Your task to perform on an android device: Open Google Chrome and open the bookmarks view Image 0: 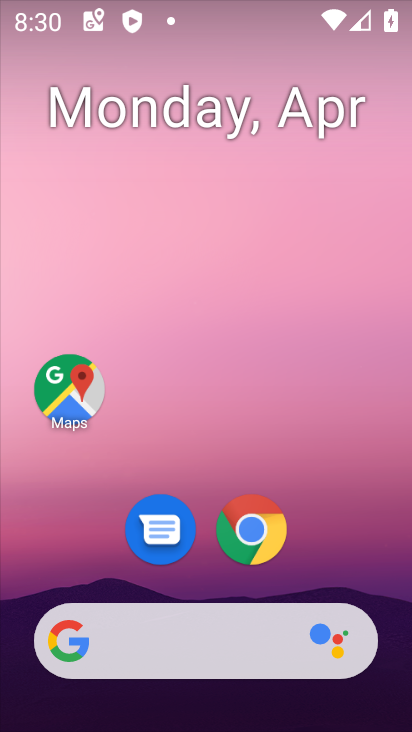
Step 0: click (258, 538)
Your task to perform on an android device: Open Google Chrome and open the bookmarks view Image 1: 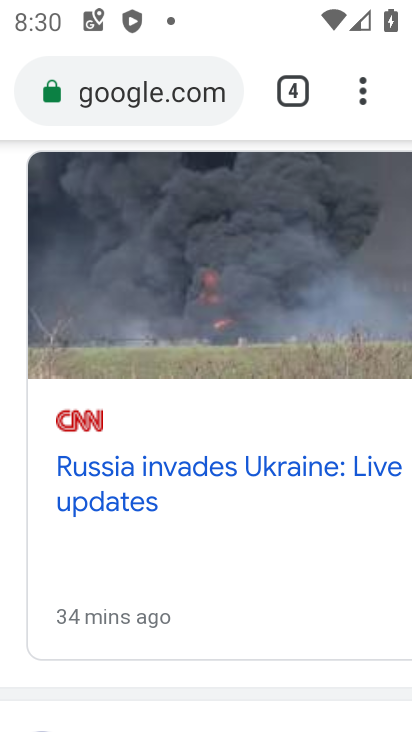
Step 1: click (359, 103)
Your task to perform on an android device: Open Google Chrome and open the bookmarks view Image 2: 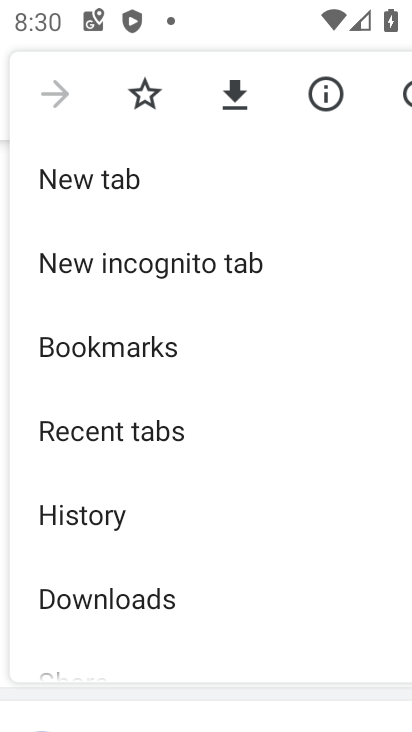
Step 2: click (149, 339)
Your task to perform on an android device: Open Google Chrome and open the bookmarks view Image 3: 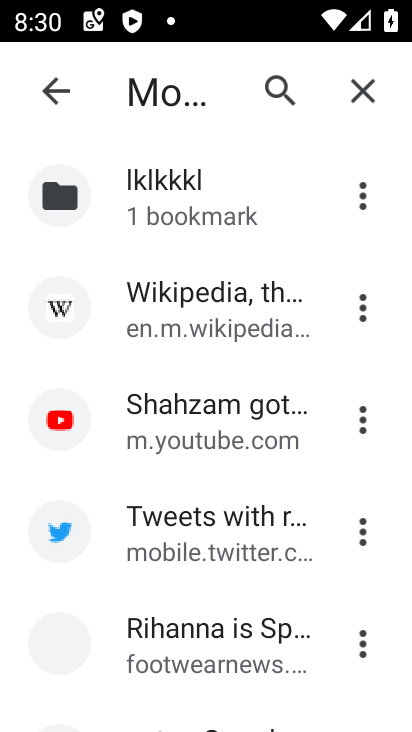
Step 3: task complete